Your task to perform on an android device: turn on translation in the chrome app Image 0: 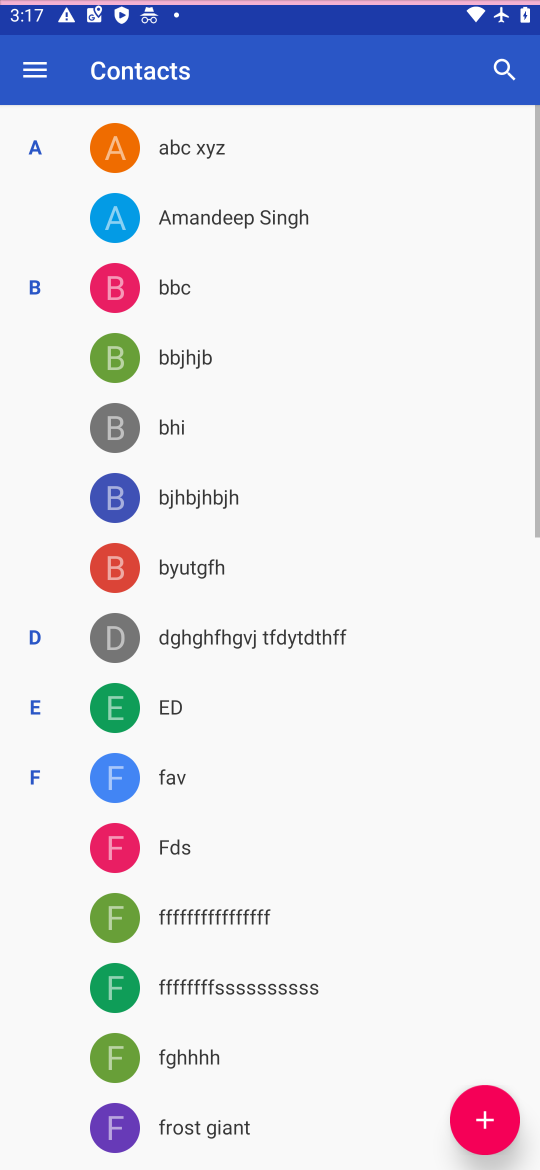
Step 0: press back button
Your task to perform on an android device: turn on translation in the chrome app Image 1: 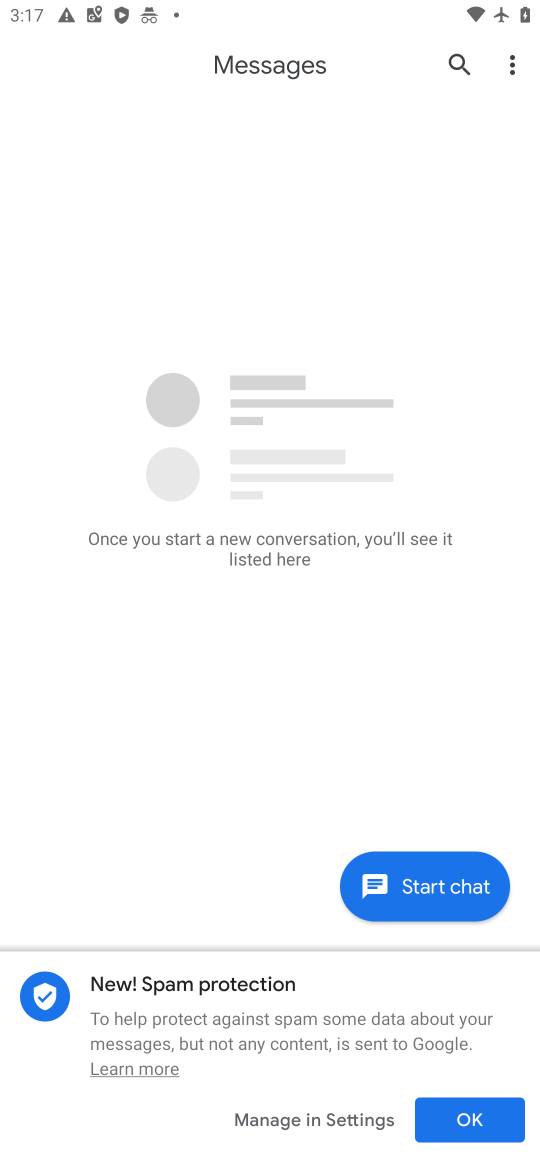
Step 1: task complete